Your task to perform on an android device: check battery use Image 0: 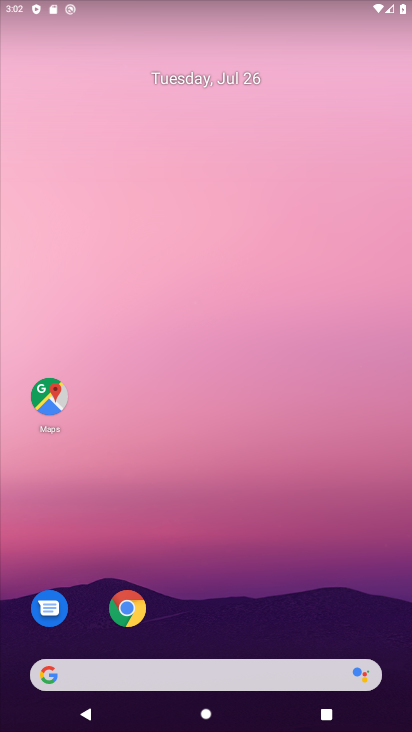
Step 0: drag from (249, 633) to (204, 112)
Your task to perform on an android device: check battery use Image 1: 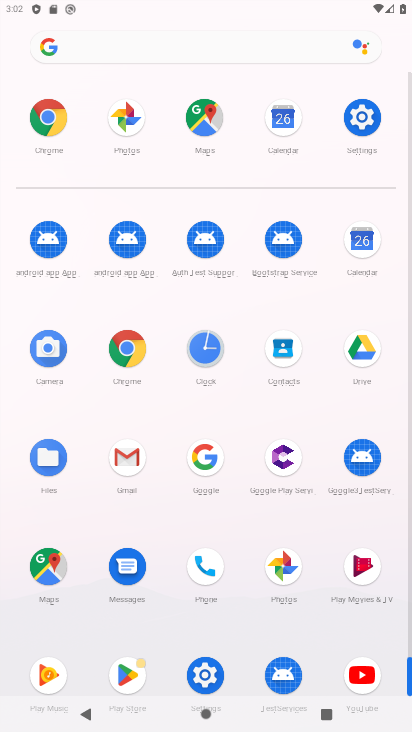
Step 1: click (209, 676)
Your task to perform on an android device: check battery use Image 2: 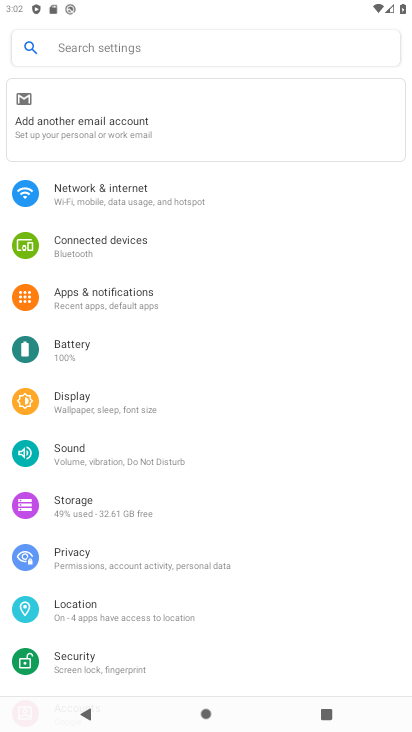
Step 2: click (84, 353)
Your task to perform on an android device: check battery use Image 3: 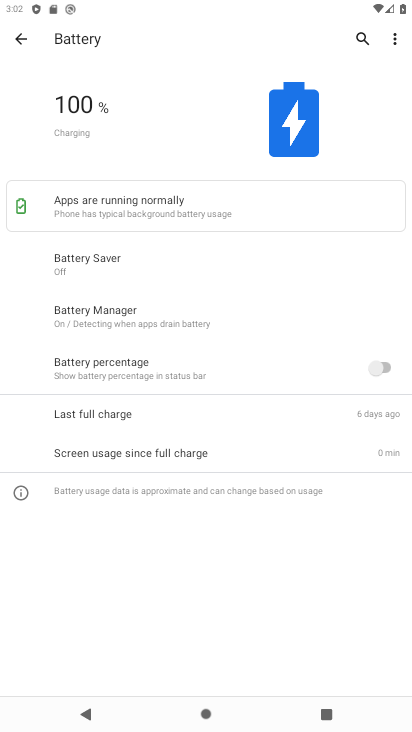
Step 3: click (395, 35)
Your task to perform on an android device: check battery use Image 4: 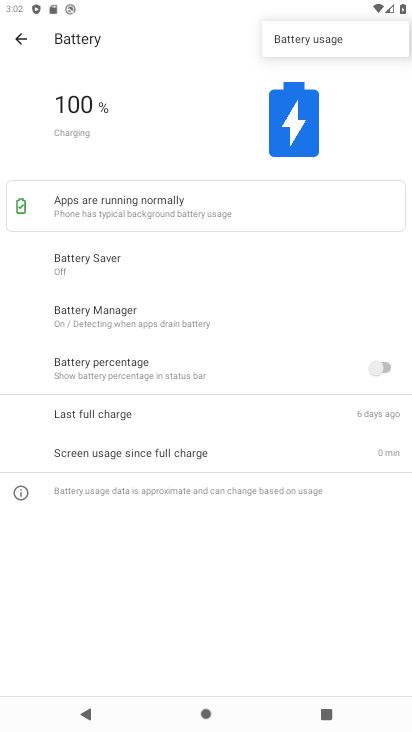
Step 4: click (331, 45)
Your task to perform on an android device: check battery use Image 5: 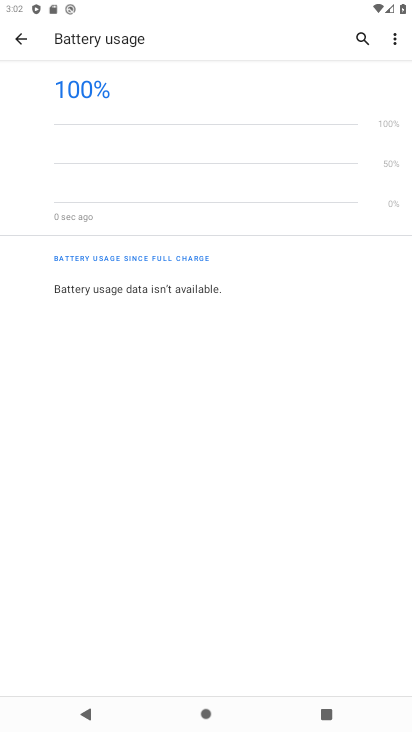
Step 5: task complete